Your task to perform on an android device: turn notification dots on Image 0: 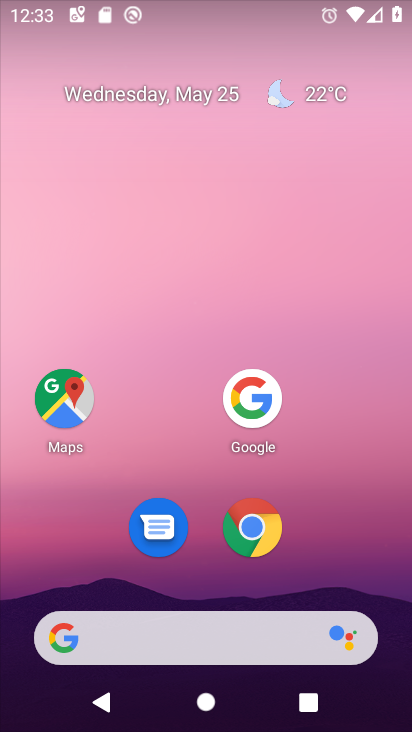
Step 0: press home button
Your task to perform on an android device: turn notification dots on Image 1: 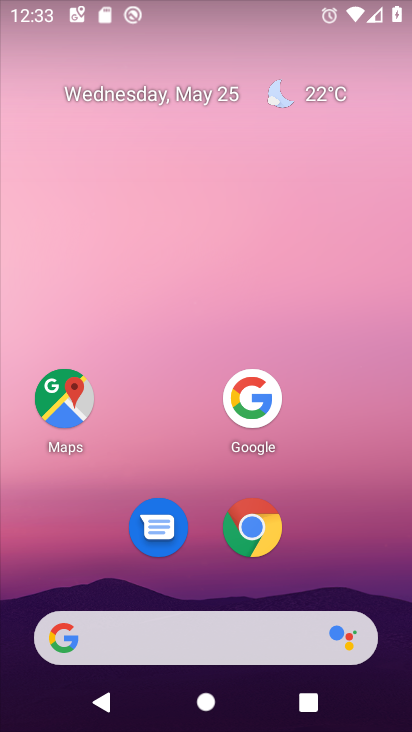
Step 1: drag from (215, 625) to (355, 59)
Your task to perform on an android device: turn notification dots on Image 2: 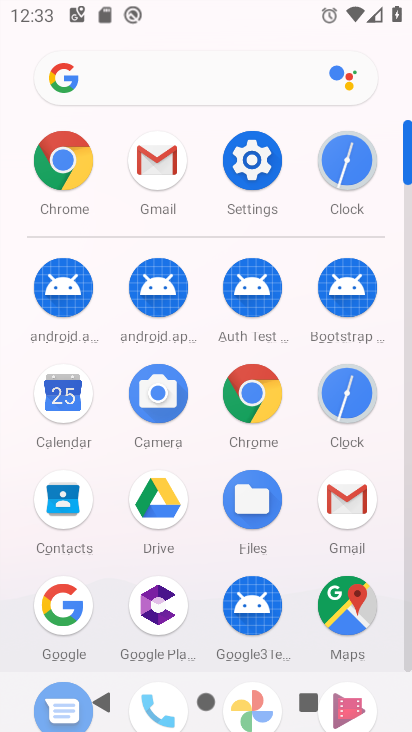
Step 2: click (265, 167)
Your task to perform on an android device: turn notification dots on Image 3: 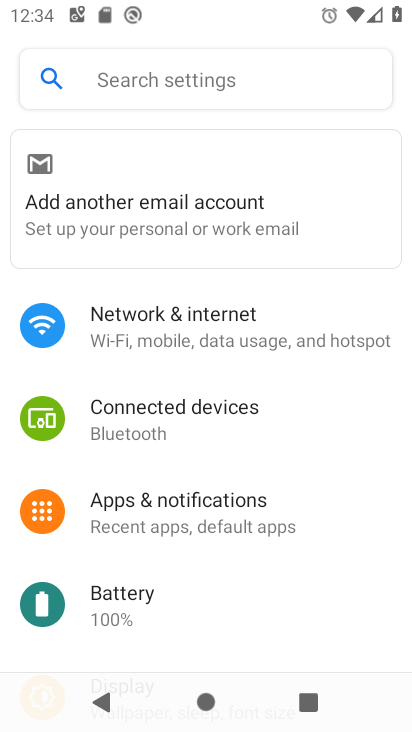
Step 3: click (218, 523)
Your task to perform on an android device: turn notification dots on Image 4: 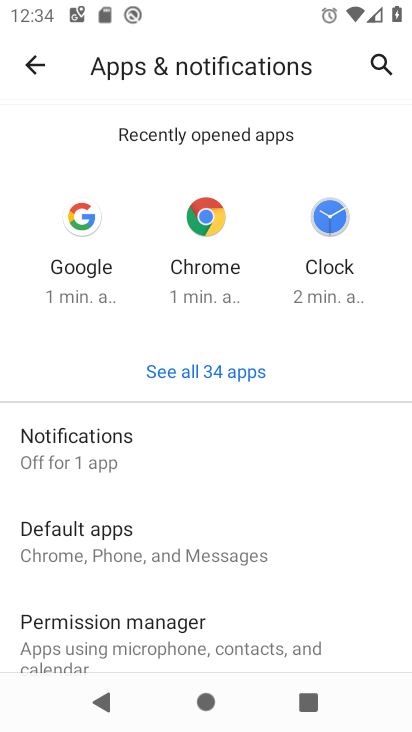
Step 4: click (85, 441)
Your task to perform on an android device: turn notification dots on Image 5: 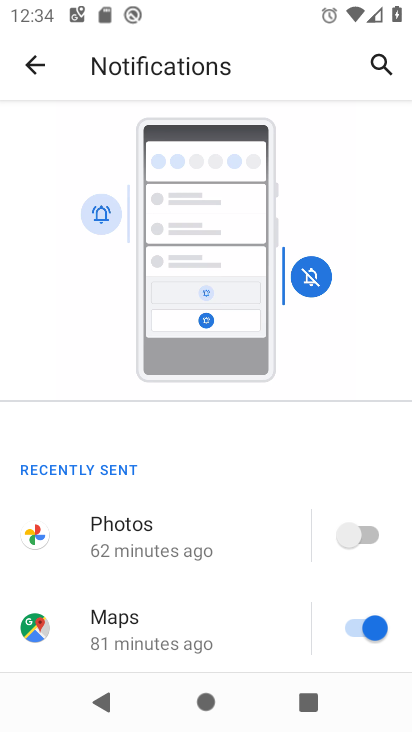
Step 5: drag from (202, 633) to (284, 115)
Your task to perform on an android device: turn notification dots on Image 6: 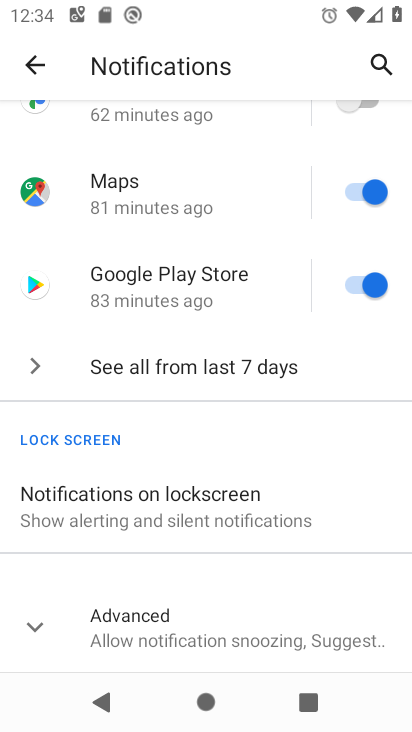
Step 6: click (169, 640)
Your task to perform on an android device: turn notification dots on Image 7: 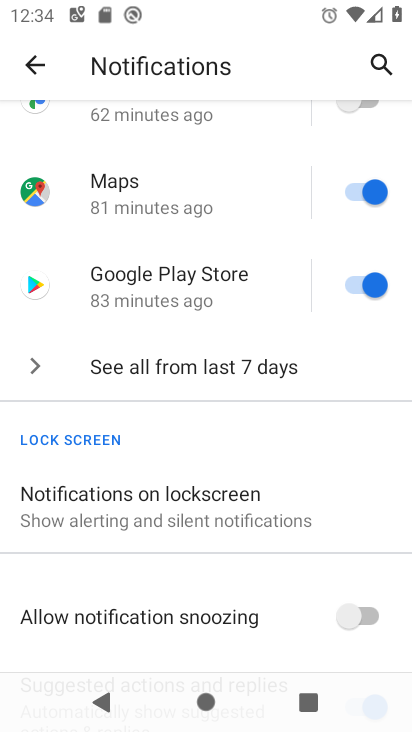
Step 7: task complete